Your task to perform on an android device: check battery use Image 0: 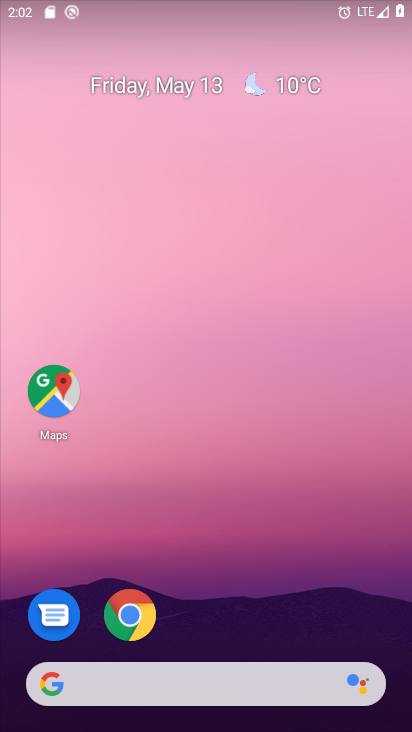
Step 0: drag from (288, 598) to (313, 9)
Your task to perform on an android device: check battery use Image 1: 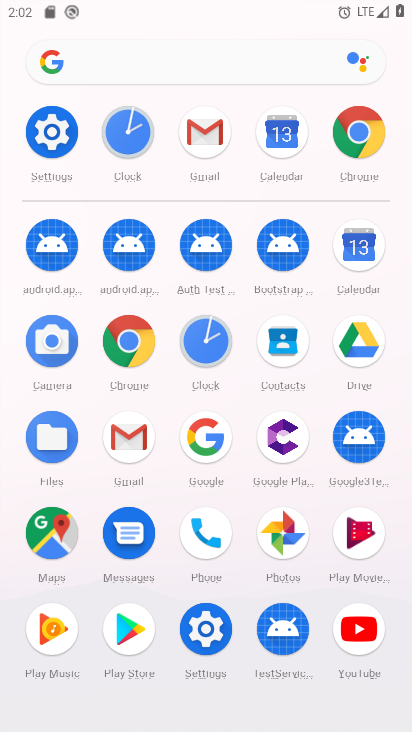
Step 1: click (41, 119)
Your task to perform on an android device: check battery use Image 2: 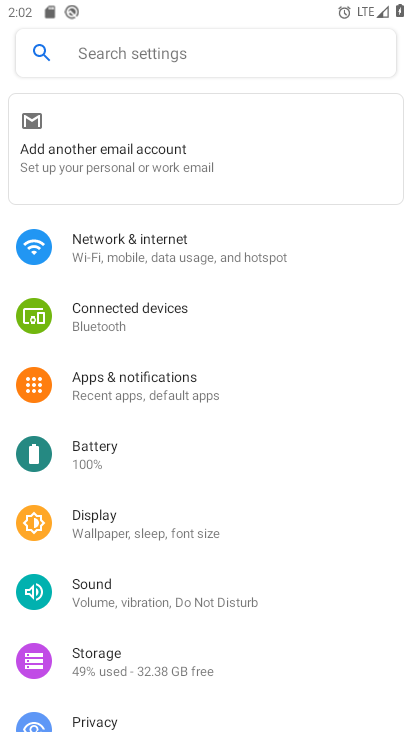
Step 2: click (147, 454)
Your task to perform on an android device: check battery use Image 3: 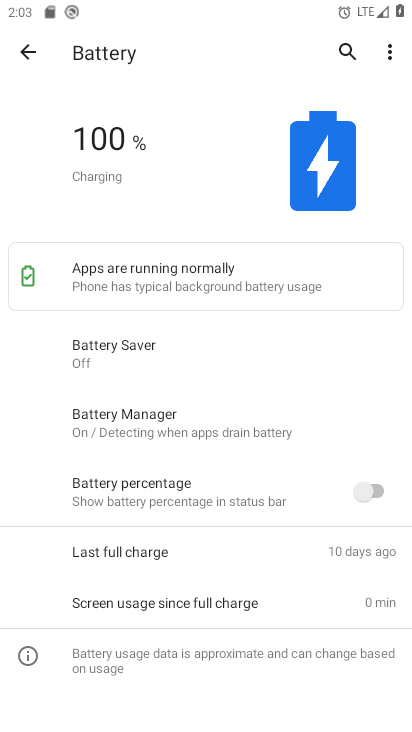
Step 3: click (389, 47)
Your task to perform on an android device: check battery use Image 4: 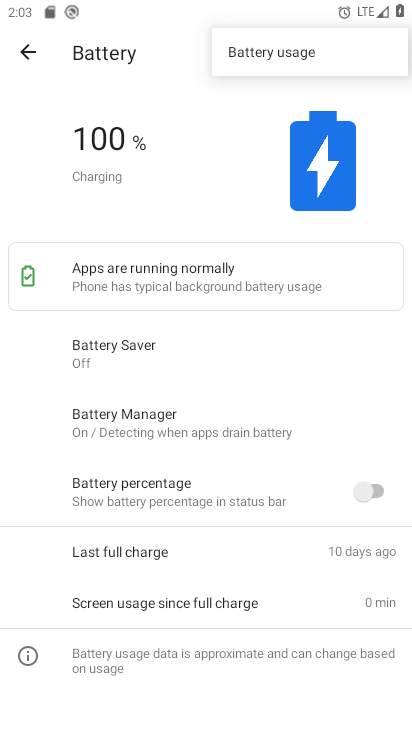
Step 4: click (315, 44)
Your task to perform on an android device: check battery use Image 5: 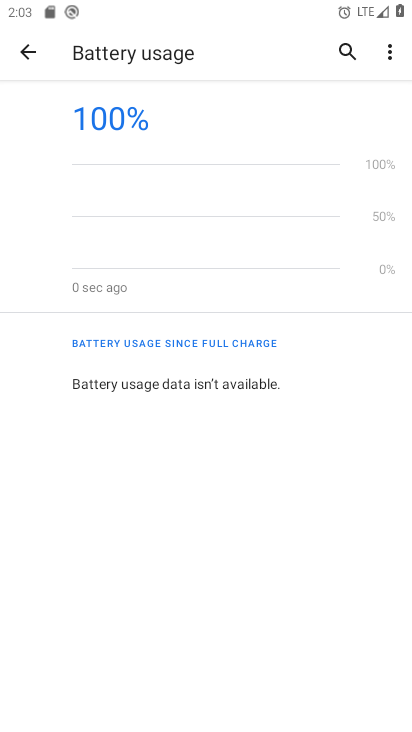
Step 5: task complete